Your task to perform on an android device: Is it going to rain today? Image 0: 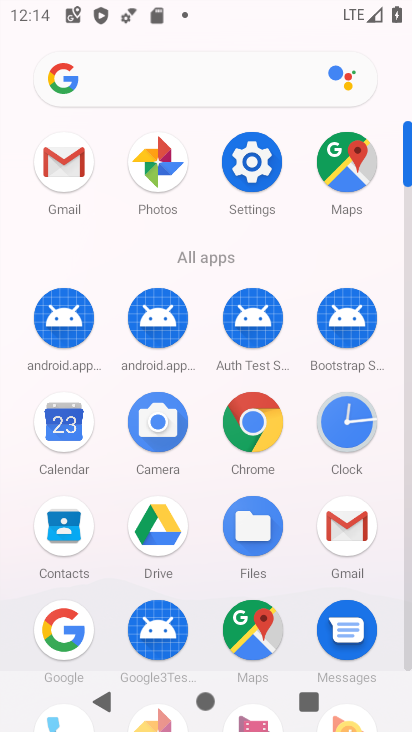
Step 0: press home button
Your task to perform on an android device: Is it going to rain today? Image 1: 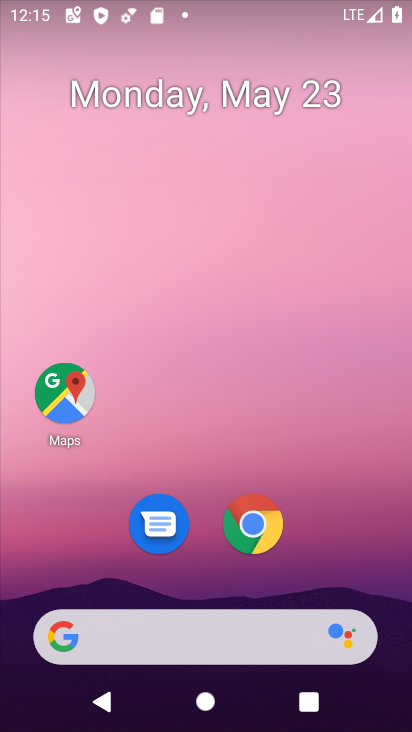
Step 1: click (182, 642)
Your task to perform on an android device: Is it going to rain today? Image 2: 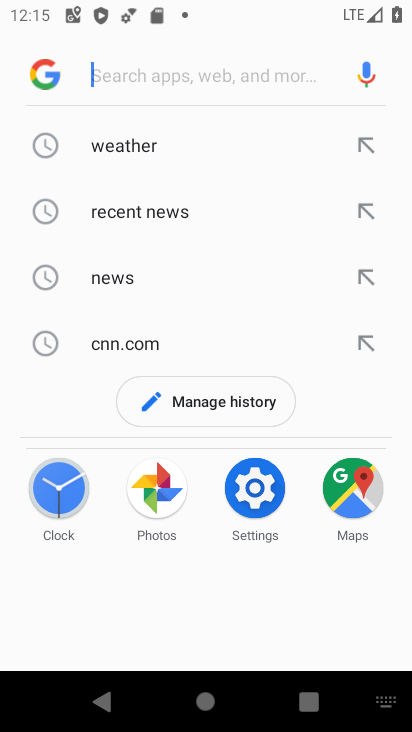
Step 2: click (128, 152)
Your task to perform on an android device: Is it going to rain today? Image 3: 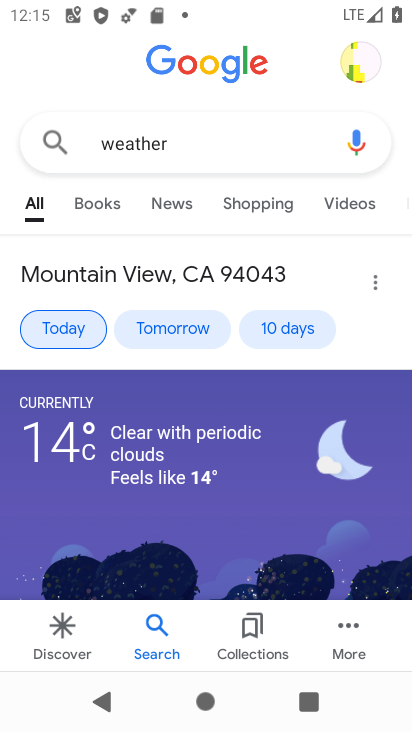
Step 3: click (36, 316)
Your task to perform on an android device: Is it going to rain today? Image 4: 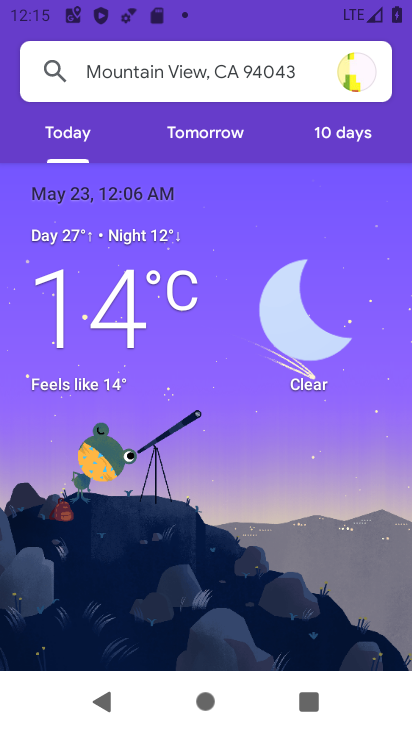
Step 4: task complete